Your task to perform on an android device: Open display settings Image 0: 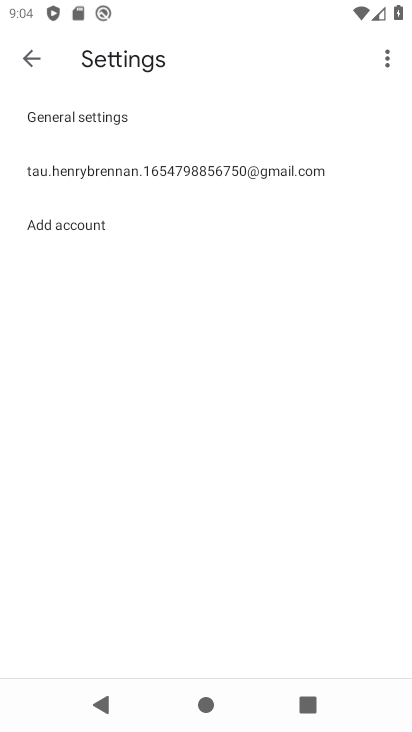
Step 0: press home button
Your task to perform on an android device: Open display settings Image 1: 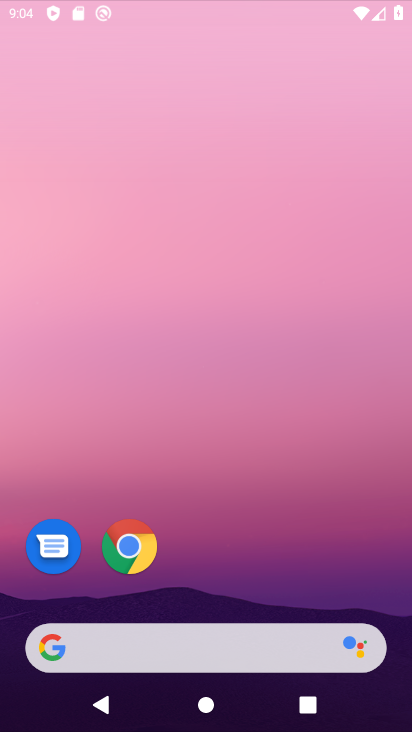
Step 1: drag from (227, 411) to (268, 157)
Your task to perform on an android device: Open display settings Image 2: 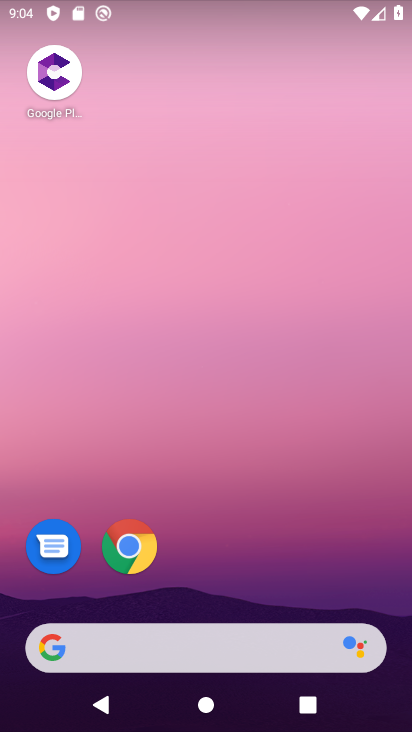
Step 2: drag from (208, 469) to (240, 103)
Your task to perform on an android device: Open display settings Image 3: 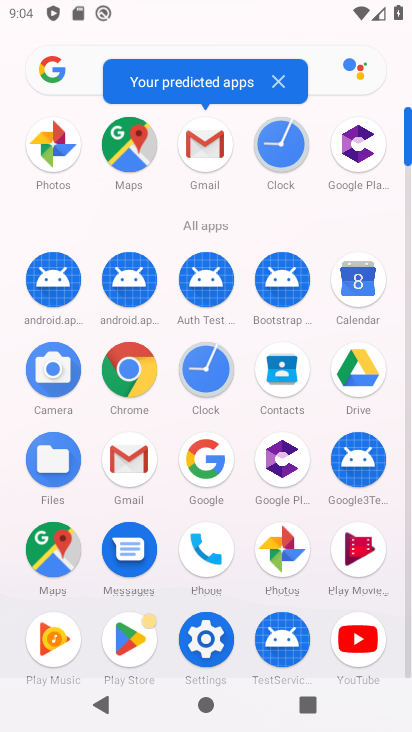
Step 3: click (216, 635)
Your task to perform on an android device: Open display settings Image 4: 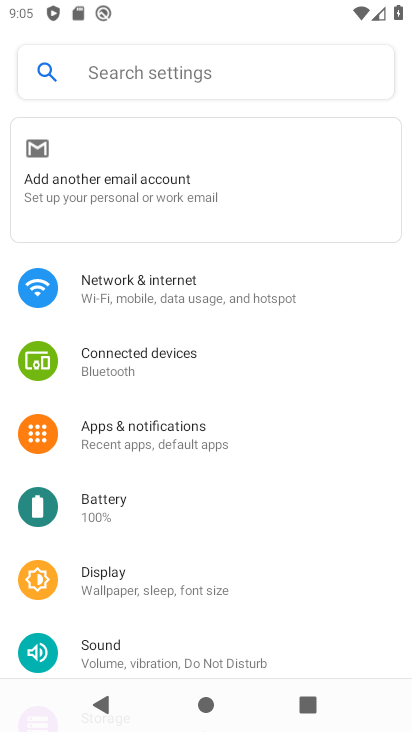
Step 4: click (151, 596)
Your task to perform on an android device: Open display settings Image 5: 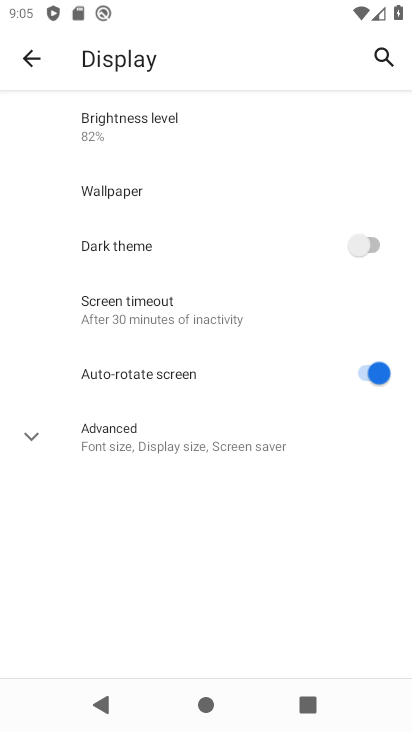
Step 5: task complete